Your task to perform on an android device: delete a single message in the gmail app Image 0: 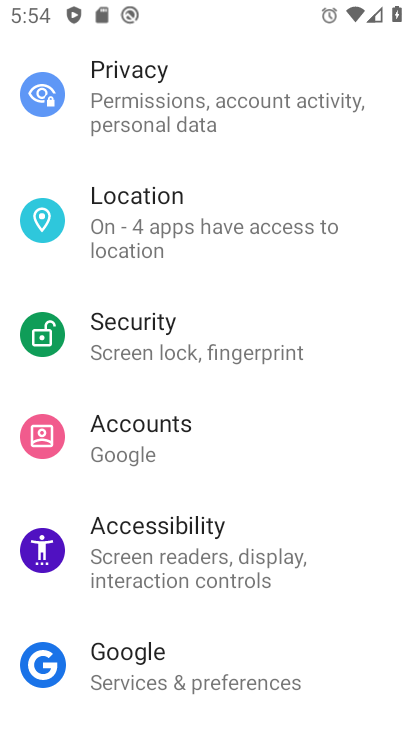
Step 0: press back button
Your task to perform on an android device: delete a single message in the gmail app Image 1: 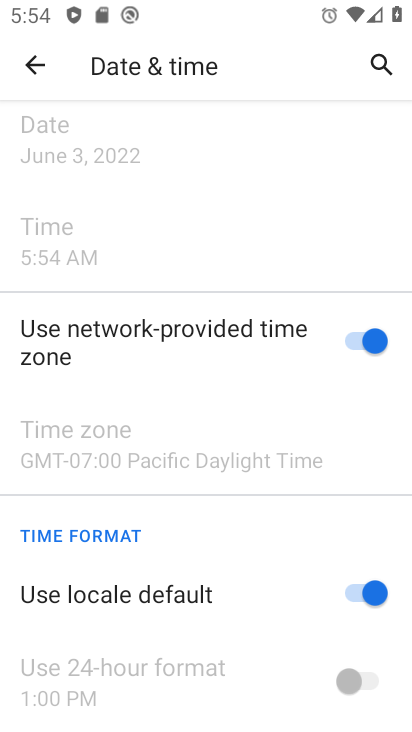
Step 1: press back button
Your task to perform on an android device: delete a single message in the gmail app Image 2: 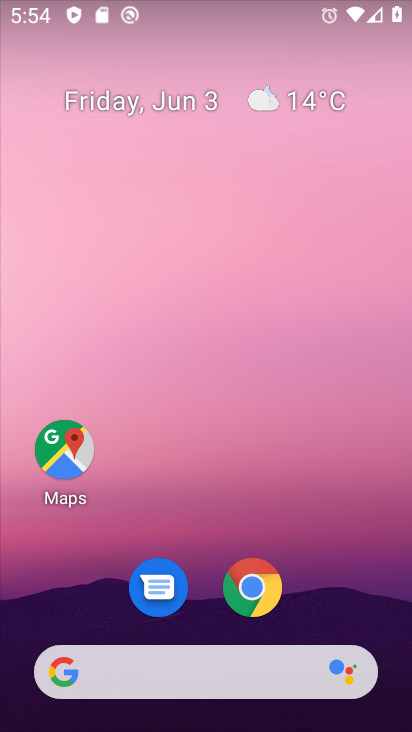
Step 2: drag from (236, 116) to (225, 18)
Your task to perform on an android device: delete a single message in the gmail app Image 3: 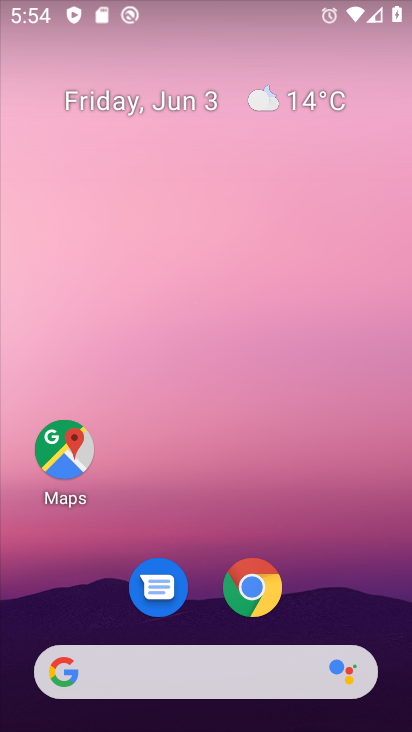
Step 3: drag from (312, 562) to (219, 69)
Your task to perform on an android device: delete a single message in the gmail app Image 4: 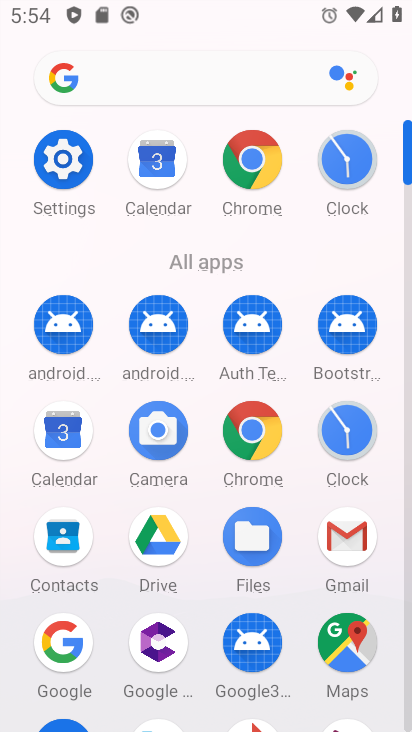
Step 4: drag from (261, 440) to (209, 44)
Your task to perform on an android device: delete a single message in the gmail app Image 5: 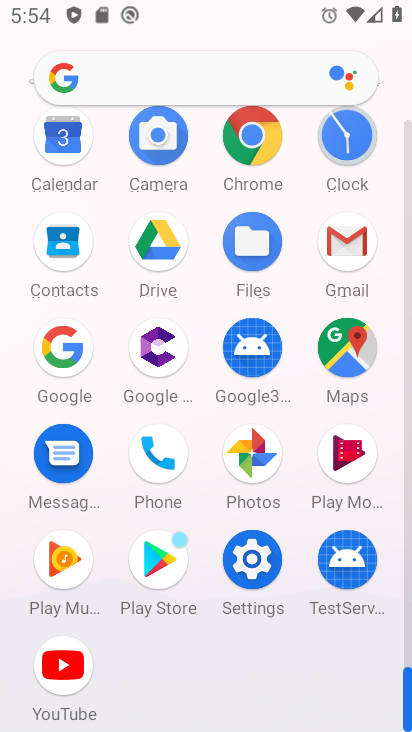
Step 5: click (348, 237)
Your task to perform on an android device: delete a single message in the gmail app Image 6: 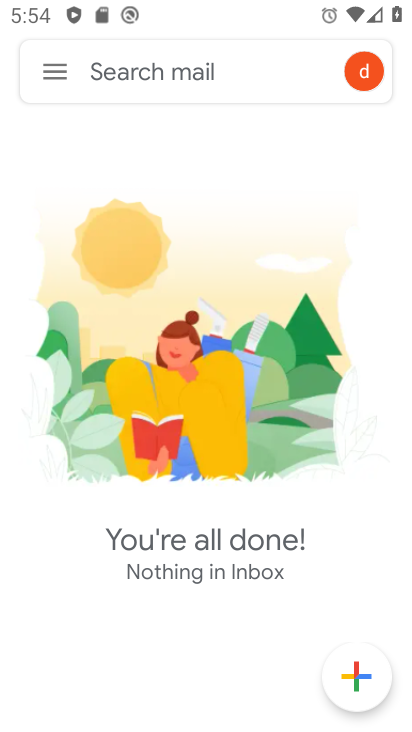
Step 6: click (48, 64)
Your task to perform on an android device: delete a single message in the gmail app Image 7: 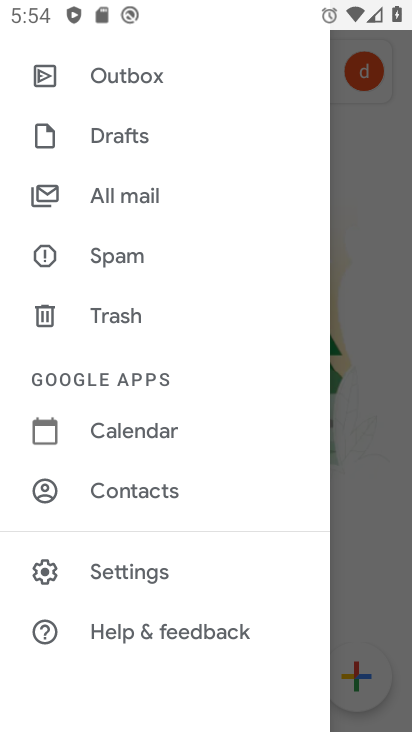
Step 7: click (151, 200)
Your task to perform on an android device: delete a single message in the gmail app Image 8: 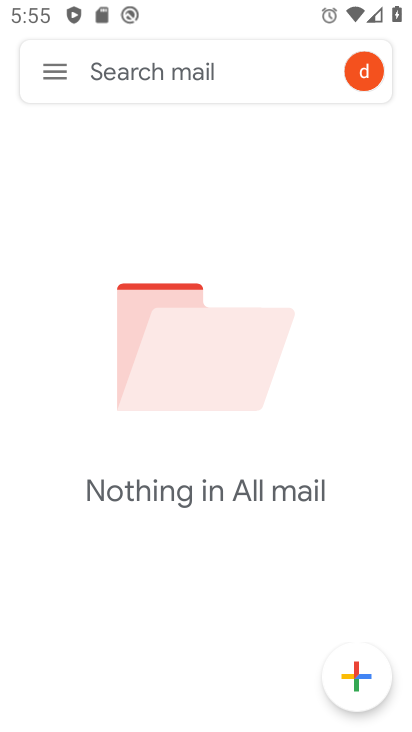
Step 8: task complete